Your task to perform on an android device: set the timer Image 0: 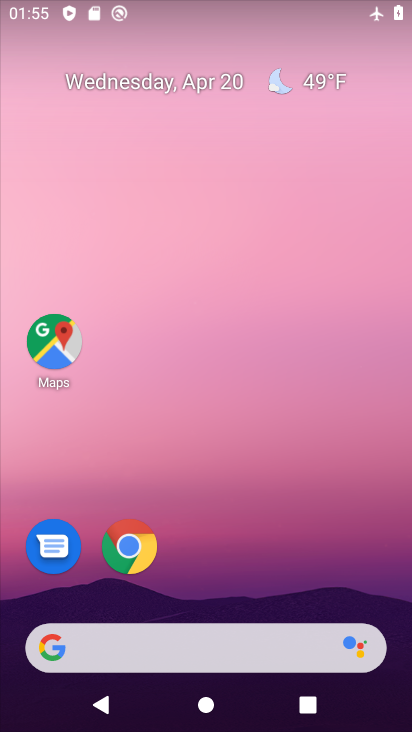
Step 0: drag from (215, 565) to (263, 246)
Your task to perform on an android device: set the timer Image 1: 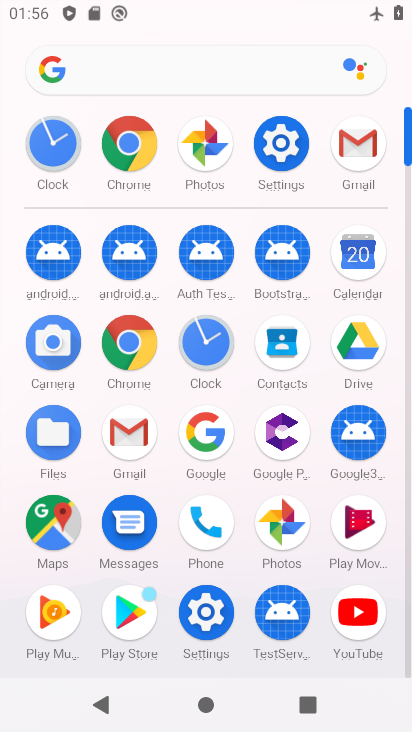
Step 1: click (207, 336)
Your task to perform on an android device: set the timer Image 2: 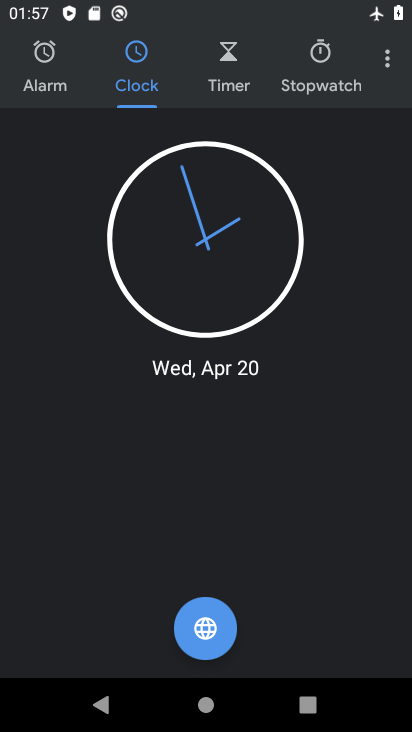
Step 2: click (226, 52)
Your task to perform on an android device: set the timer Image 3: 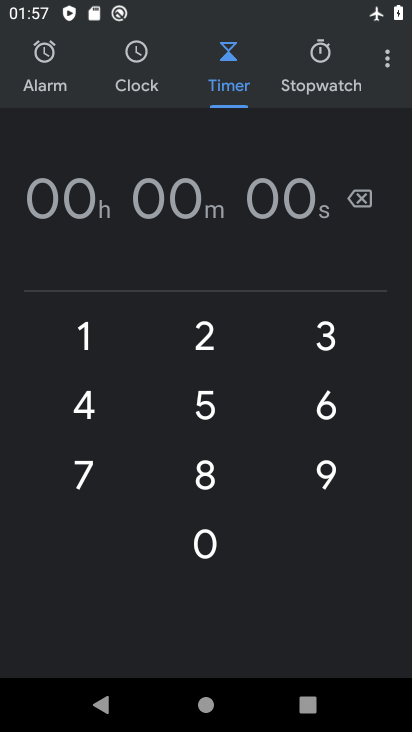
Step 3: click (76, 210)
Your task to perform on an android device: set the timer Image 4: 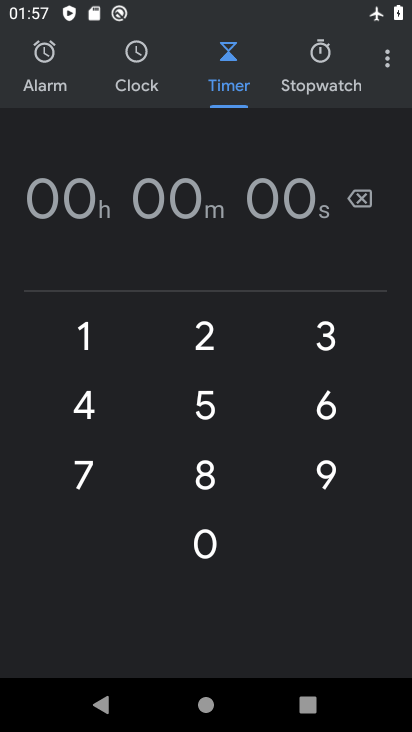
Step 4: type "09"
Your task to perform on an android device: set the timer Image 5: 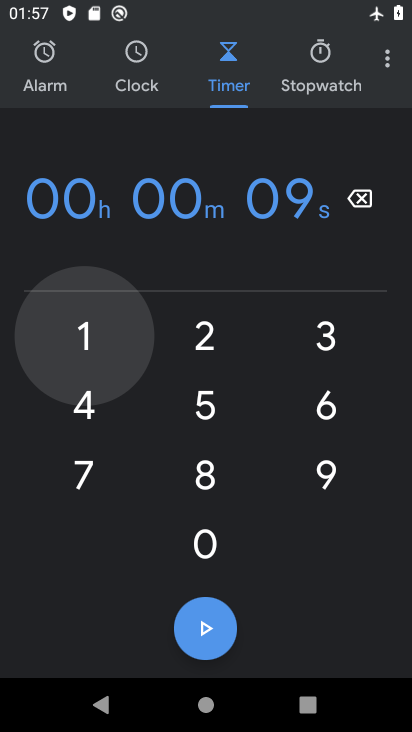
Step 5: type "80"
Your task to perform on an android device: set the timer Image 6: 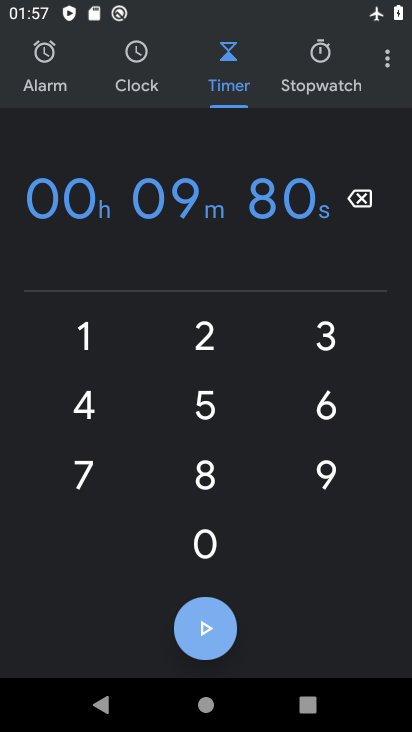
Step 6: type "00"
Your task to perform on an android device: set the timer Image 7: 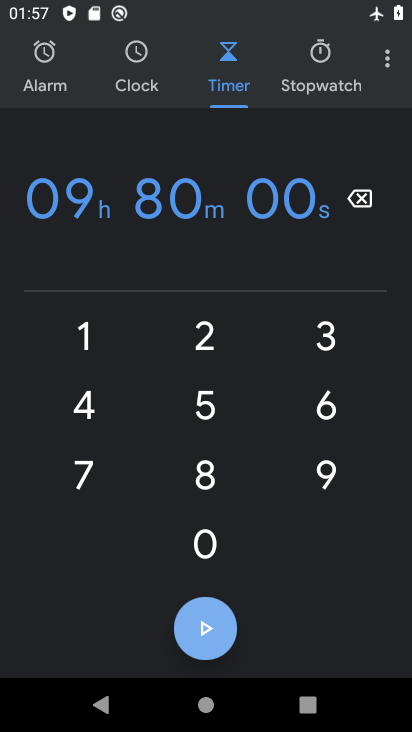
Step 7: click (219, 617)
Your task to perform on an android device: set the timer Image 8: 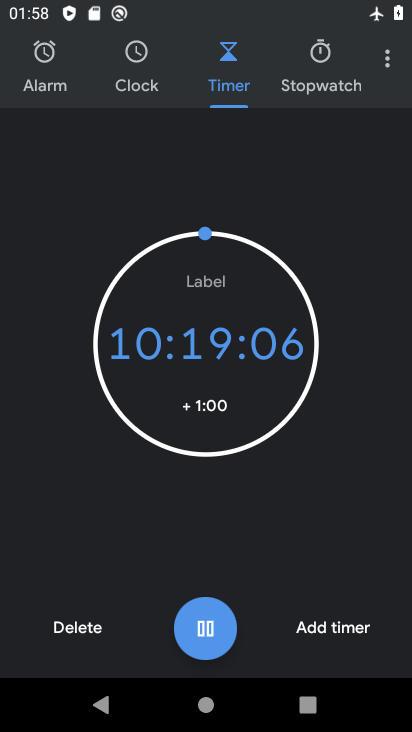
Step 8: task complete